Your task to perform on an android device: toggle translation in the chrome app Image 0: 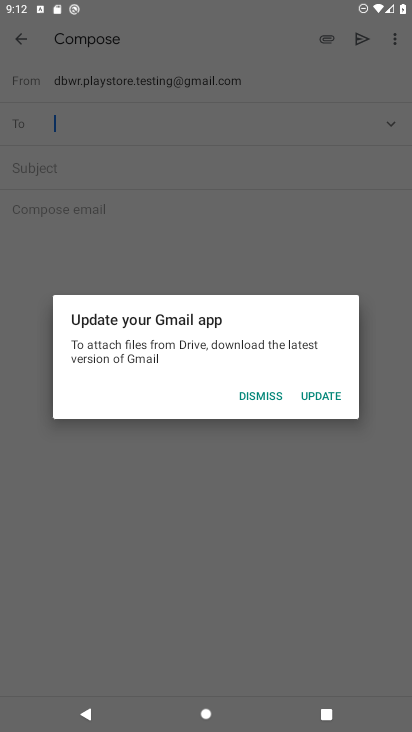
Step 0: press home button
Your task to perform on an android device: toggle translation in the chrome app Image 1: 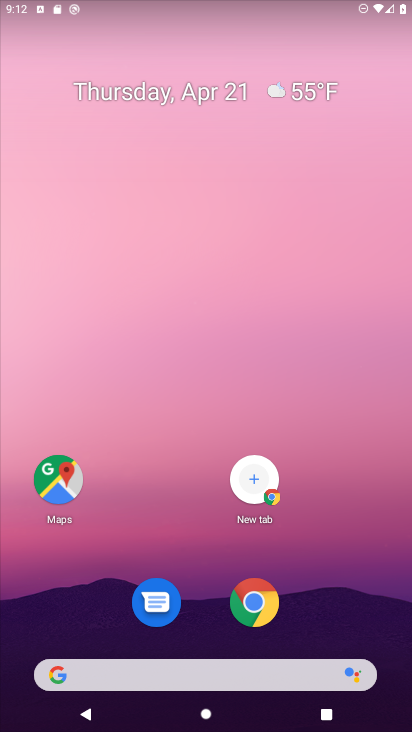
Step 1: click (256, 607)
Your task to perform on an android device: toggle translation in the chrome app Image 2: 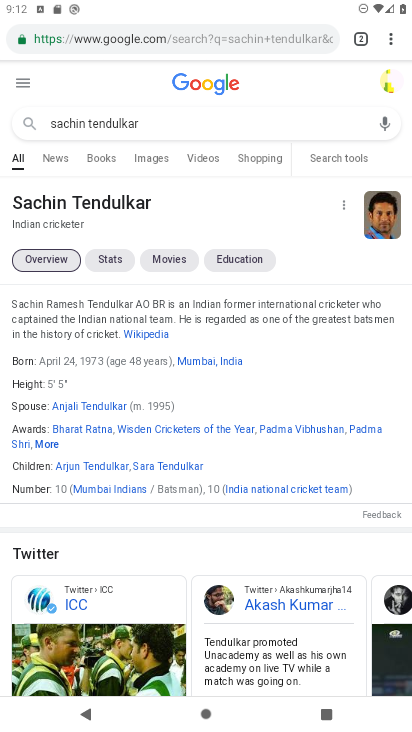
Step 2: click (256, 607)
Your task to perform on an android device: toggle translation in the chrome app Image 3: 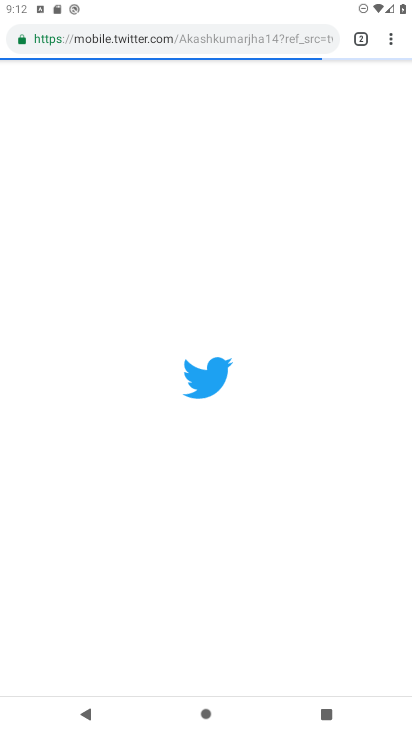
Step 3: click (390, 32)
Your task to perform on an android device: toggle translation in the chrome app Image 4: 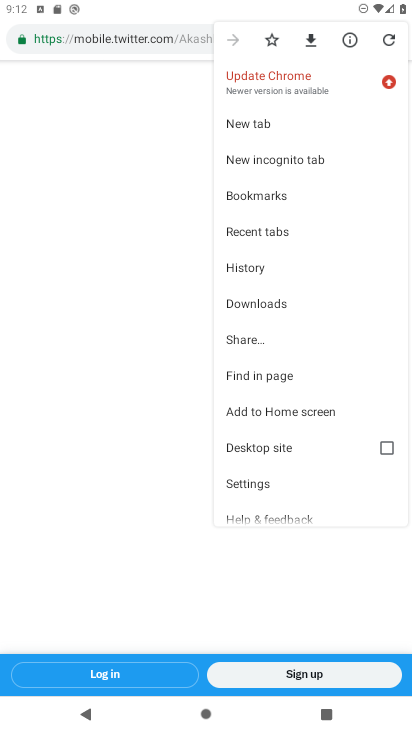
Step 4: click (255, 494)
Your task to perform on an android device: toggle translation in the chrome app Image 5: 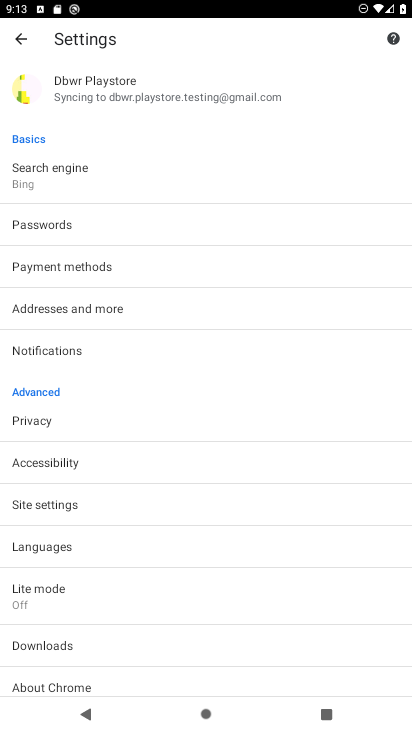
Step 5: click (104, 537)
Your task to perform on an android device: toggle translation in the chrome app Image 6: 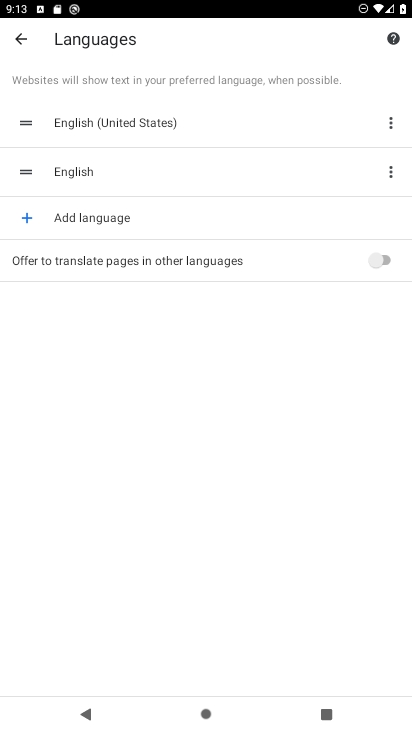
Step 6: click (376, 257)
Your task to perform on an android device: toggle translation in the chrome app Image 7: 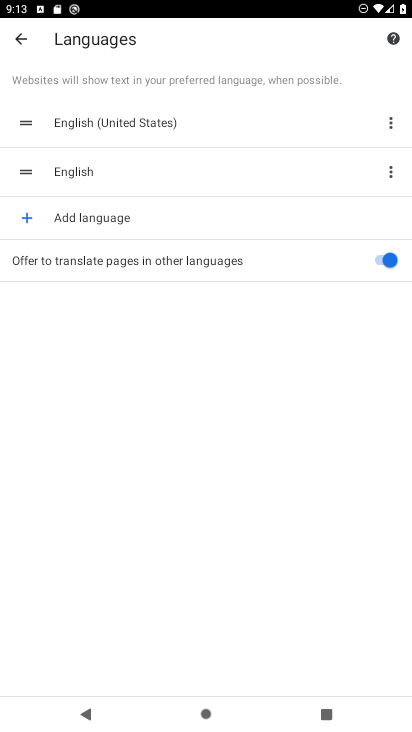
Step 7: click (376, 257)
Your task to perform on an android device: toggle translation in the chrome app Image 8: 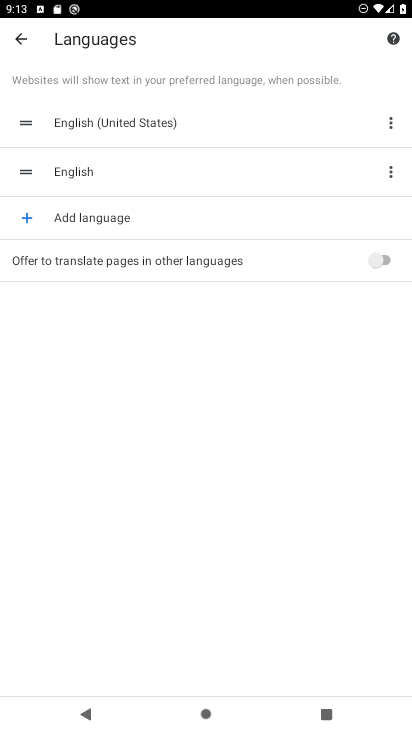
Step 8: task complete